Your task to perform on an android device: show emergency info Image 0: 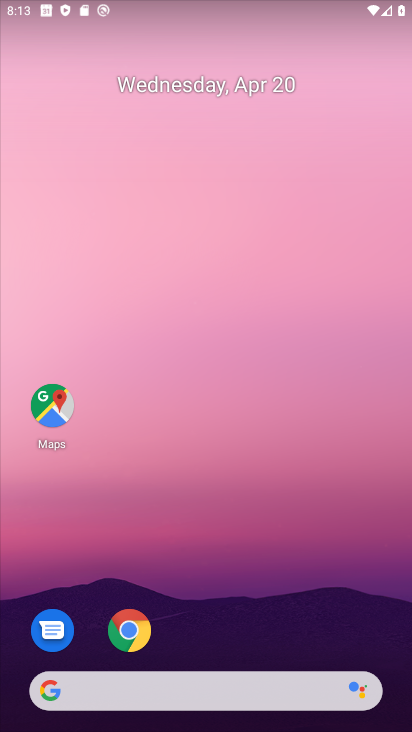
Step 0: click (135, 636)
Your task to perform on an android device: show emergency info Image 1: 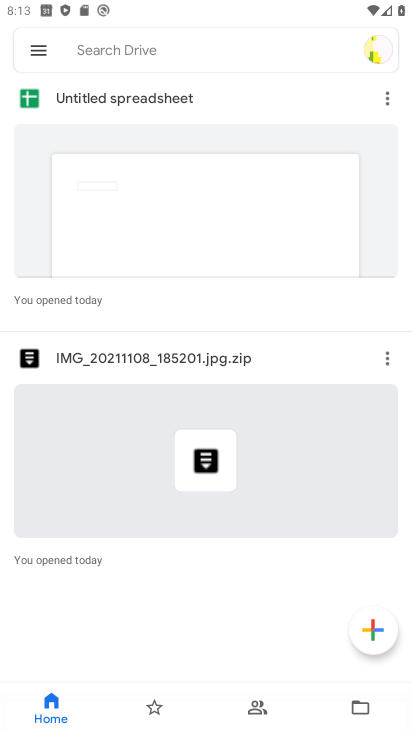
Step 1: press home button
Your task to perform on an android device: show emergency info Image 2: 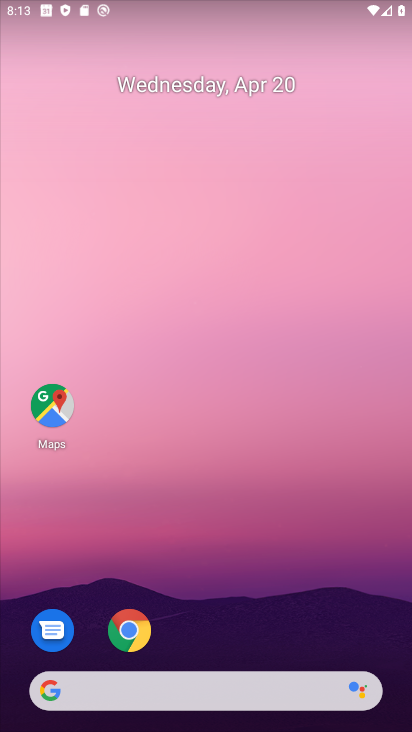
Step 2: drag from (235, 473) to (220, 61)
Your task to perform on an android device: show emergency info Image 3: 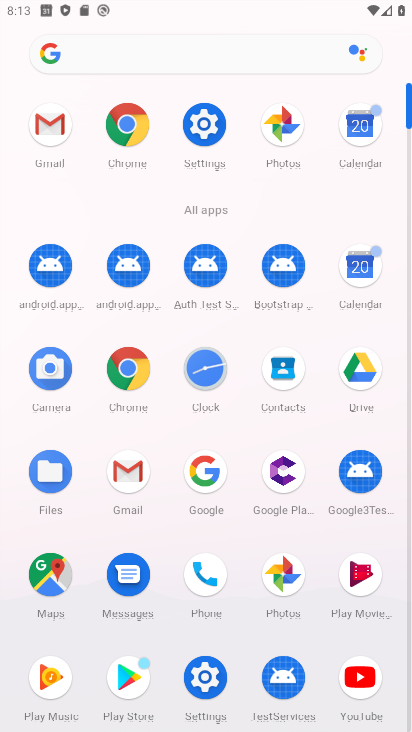
Step 3: click (196, 135)
Your task to perform on an android device: show emergency info Image 4: 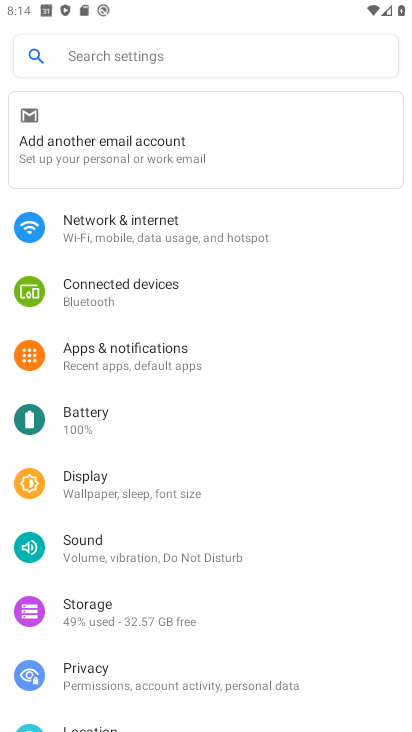
Step 4: drag from (348, 566) to (273, 121)
Your task to perform on an android device: show emergency info Image 5: 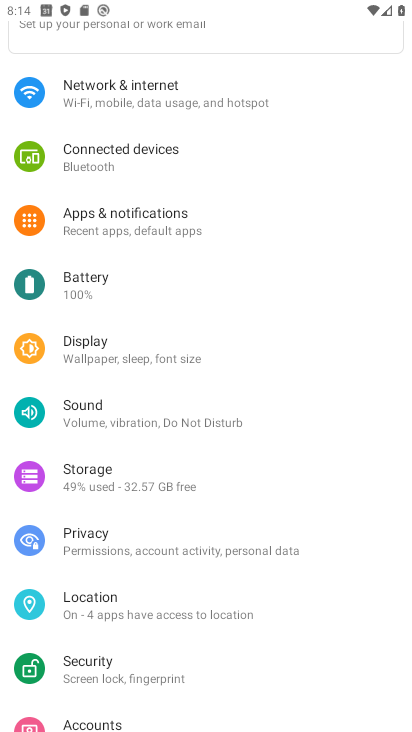
Step 5: drag from (312, 644) to (324, 111)
Your task to perform on an android device: show emergency info Image 6: 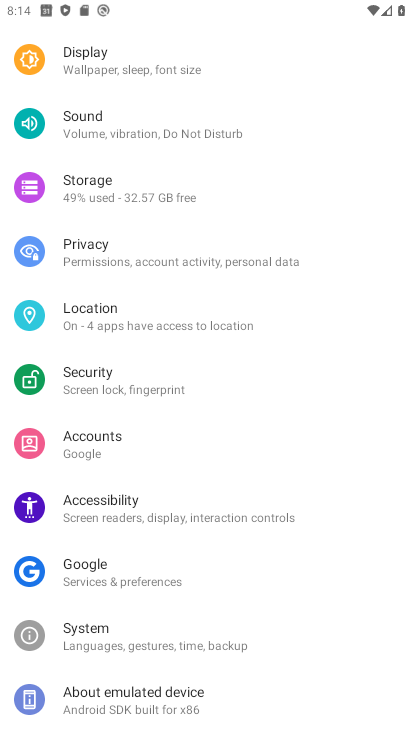
Step 6: click (158, 697)
Your task to perform on an android device: show emergency info Image 7: 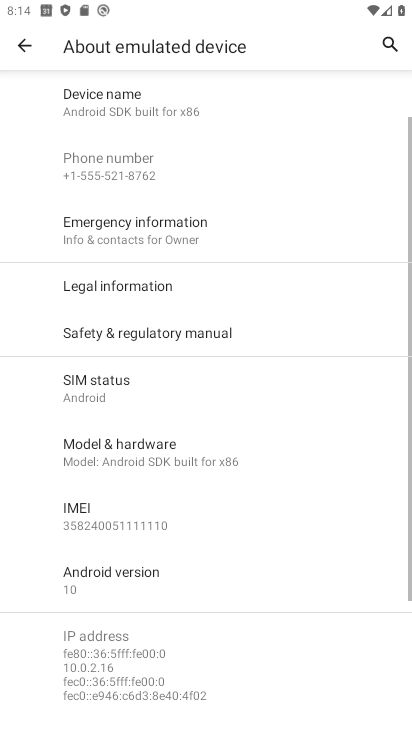
Step 7: click (170, 241)
Your task to perform on an android device: show emergency info Image 8: 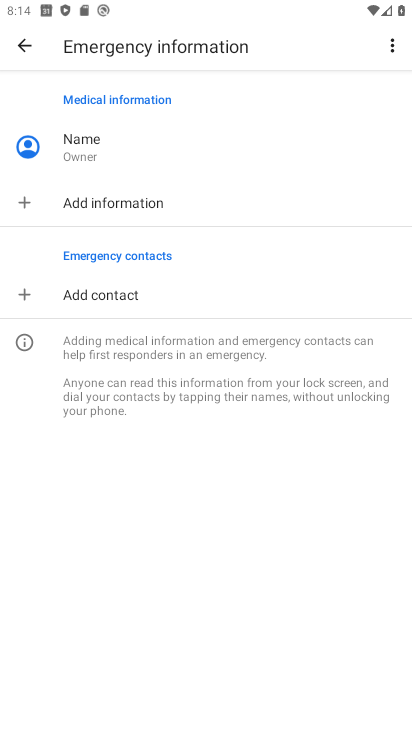
Step 8: task complete